Your task to perform on an android device: add a label to a message in the gmail app Image 0: 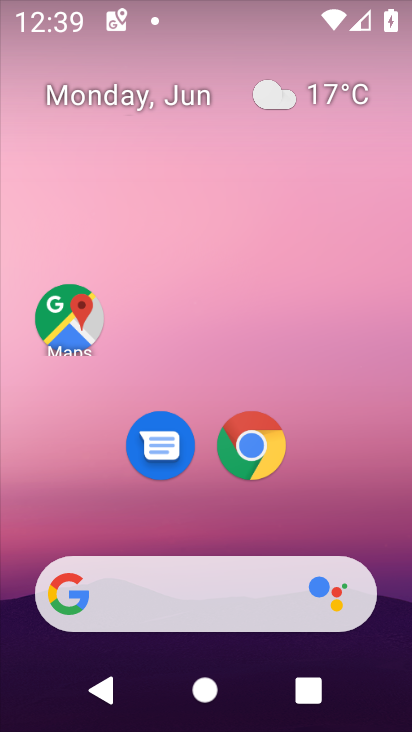
Step 0: drag from (351, 489) to (325, 11)
Your task to perform on an android device: add a label to a message in the gmail app Image 1: 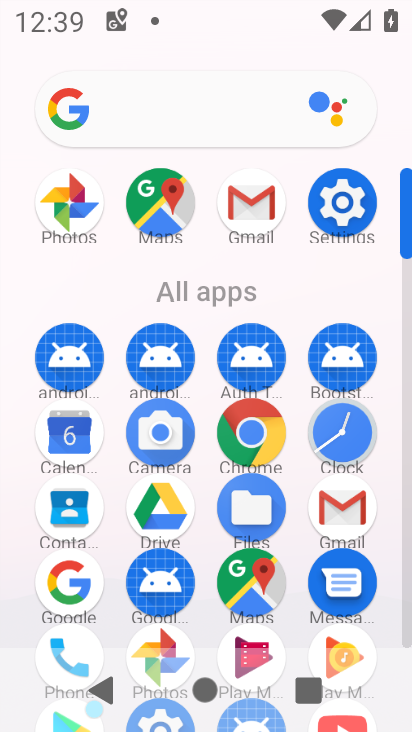
Step 1: click (341, 507)
Your task to perform on an android device: add a label to a message in the gmail app Image 2: 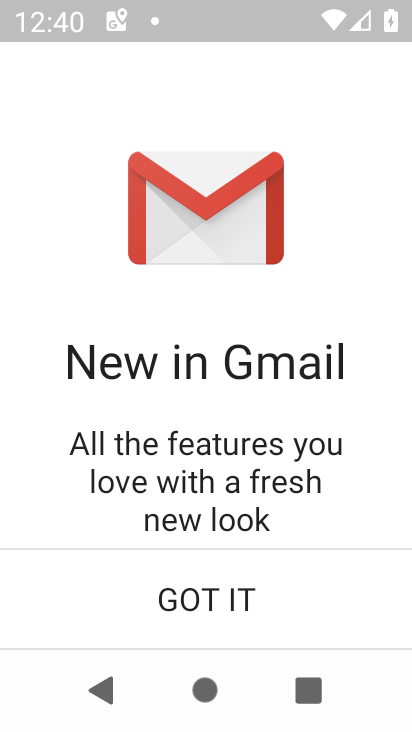
Step 2: click (239, 610)
Your task to perform on an android device: add a label to a message in the gmail app Image 3: 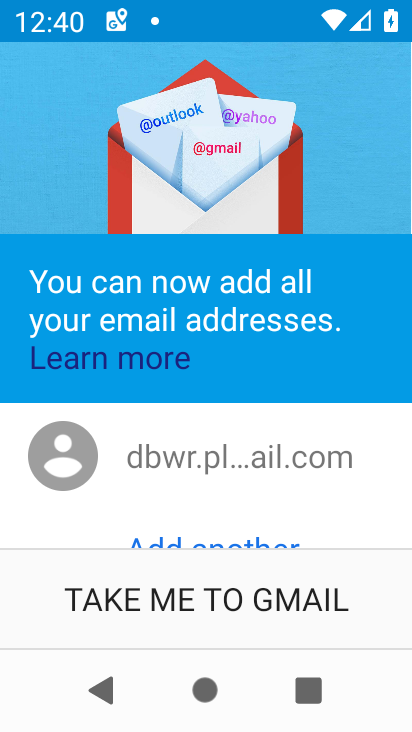
Step 3: click (290, 616)
Your task to perform on an android device: add a label to a message in the gmail app Image 4: 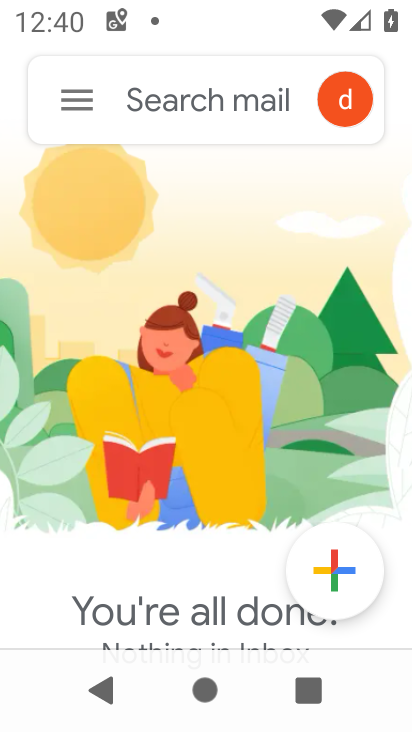
Step 4: click (79, 110)
Your task to perform on an android device: add a label to a message in the gmail app Image 5: 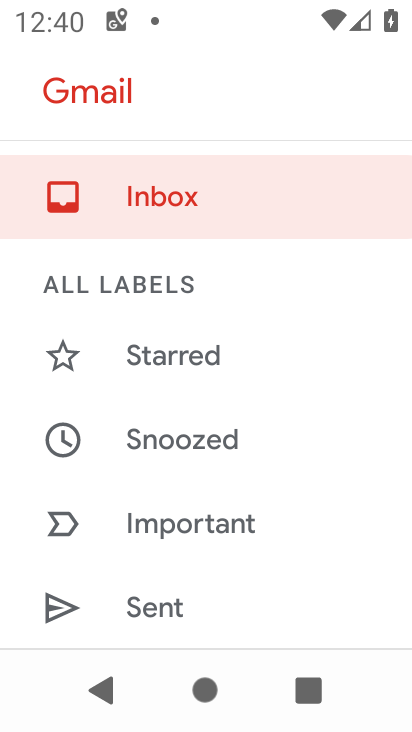
Step 5: drag from (198, 538) to (202, 111)
Your task to perform on an android device: add a label to a message in the gmail app Image 6: 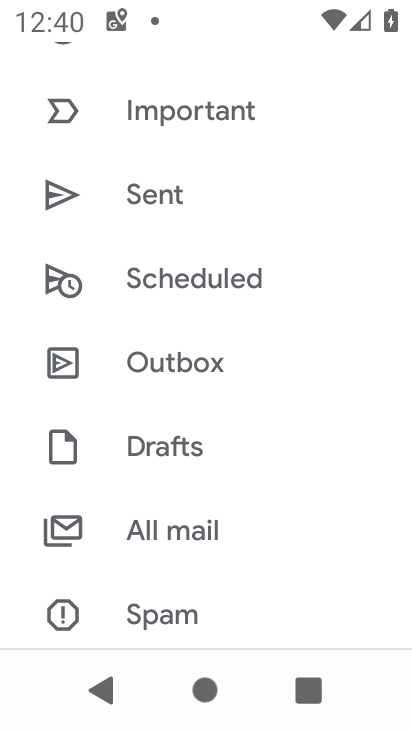
Step 6: click (183, 559)
Your task to perform on an android device: add a label to a message in the gmail app Image 7: 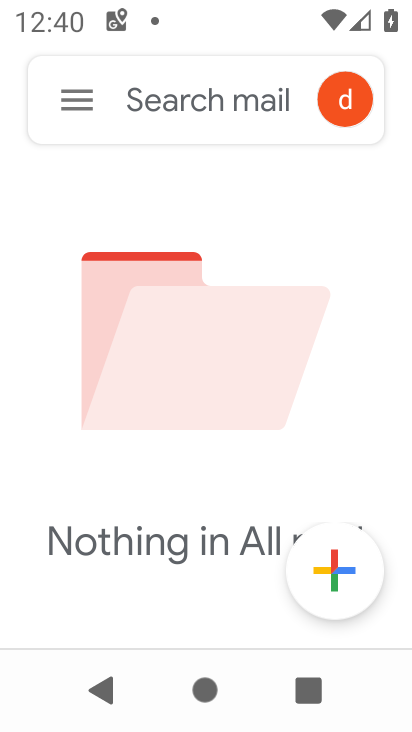
Step 7: task complete